Your task to perform on an android device: Search for pizza restaurants on Maps Image 0: 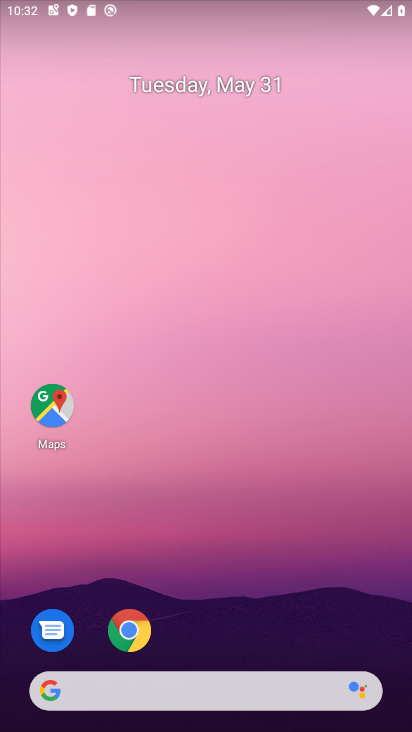
Step 0: click (64, 409)
Your task to perform on an android device: Search for pizza restaurants on Maps Image 1: 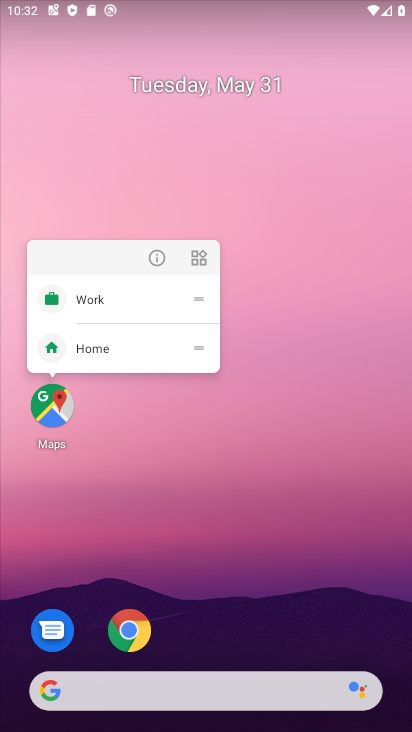
Step 1: click (50, 421)
Your task to perform on an android device: Search for pizza restaurants on Maps Image 2: 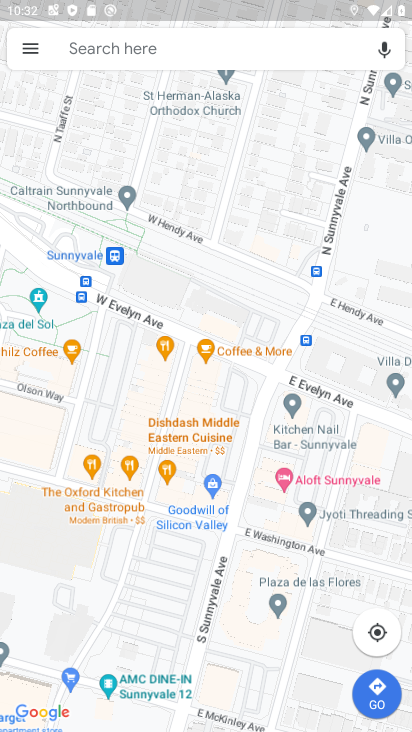
Step 2: click (107, 52)
Your task to perform on an android device: Search for pizza restaurants on Maps Image 3: 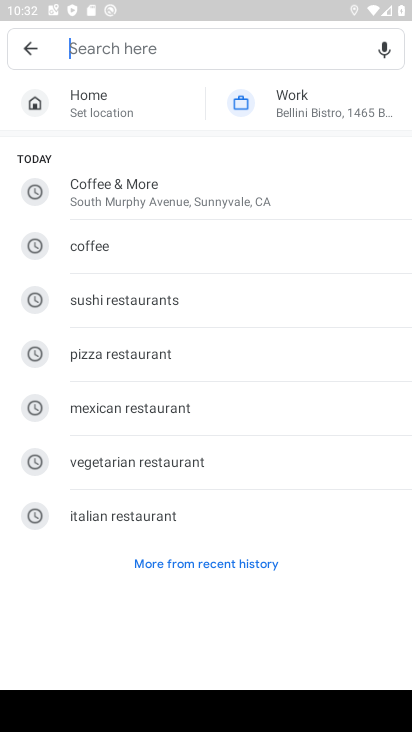
Step 3: click (149, 352)
Your task to perform on an android device: Search for pizza restaurants on Maps Image 4: 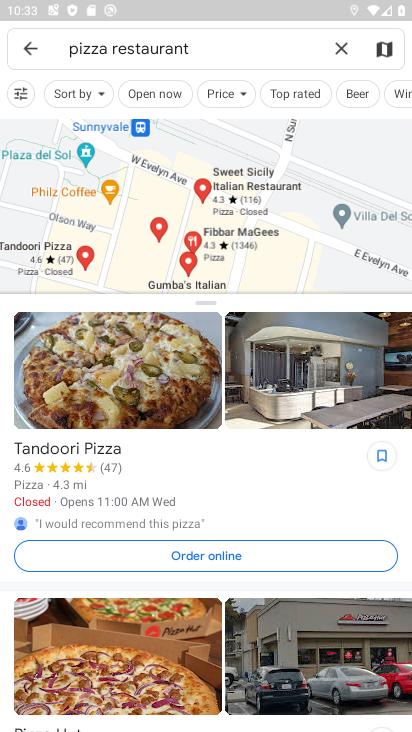
Step 4: task complete